Your task to perform on an android device: Go to CNN.com Image 0: 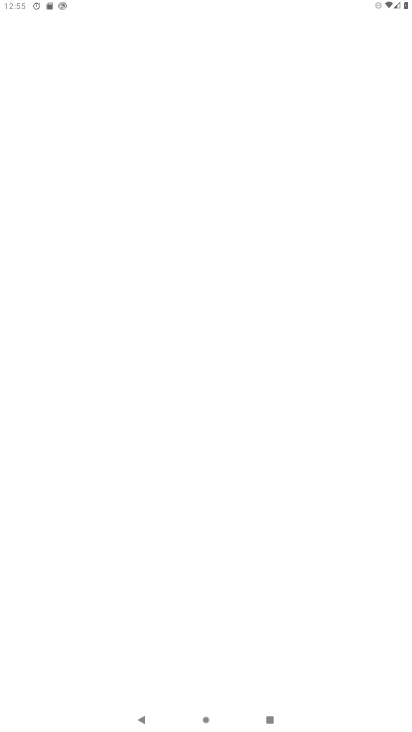
Step 0: drag from (36, 673) to (207, 0)
Your task to perform on an android device: Go to CNN.com Image 1: 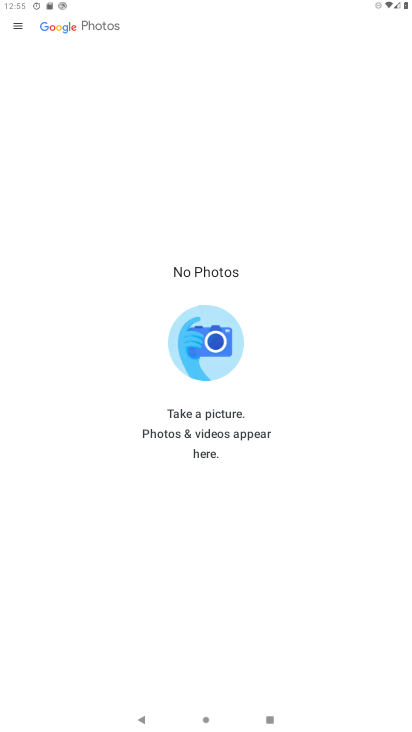
Step 1: press home button
Your task to perform on an android device: Go to CNN.com Image 2: 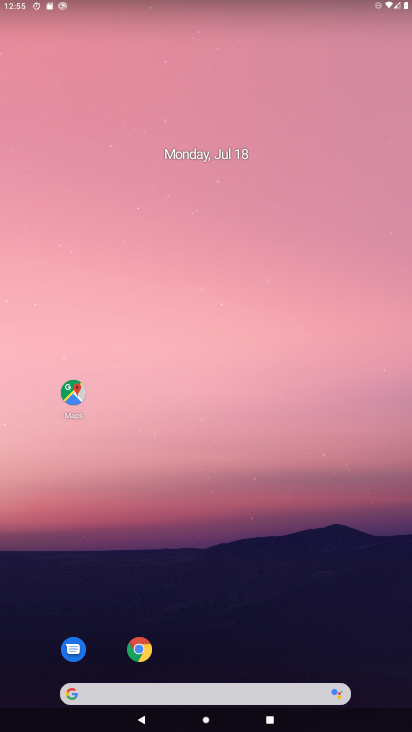
Step 2: click (97, 674)
Your task to perform on an android device: Go to CNN.com Image 3: 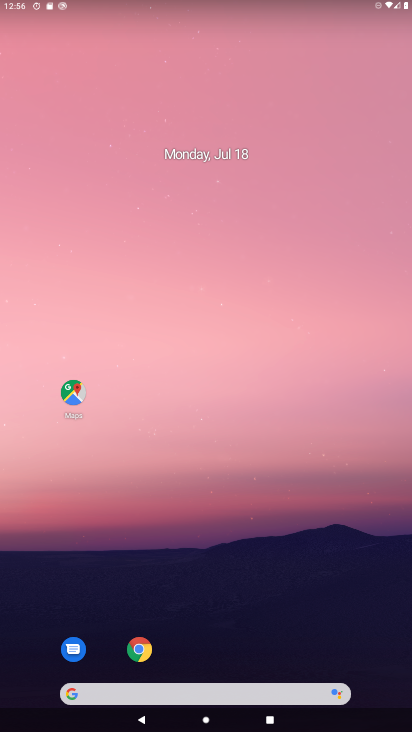
Step 3: click (104, 691)
Your task to perform on an android device: Go to CNN.com Image 4: 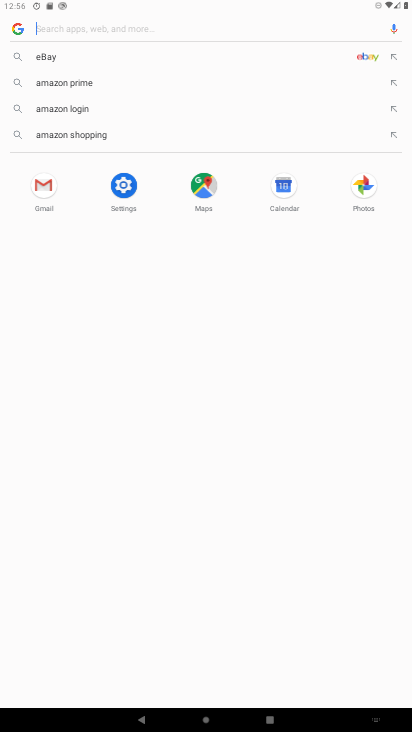
Step 4: type "CNN.com"
Your task to perform on an android device: Go to CNN.com Image 5: 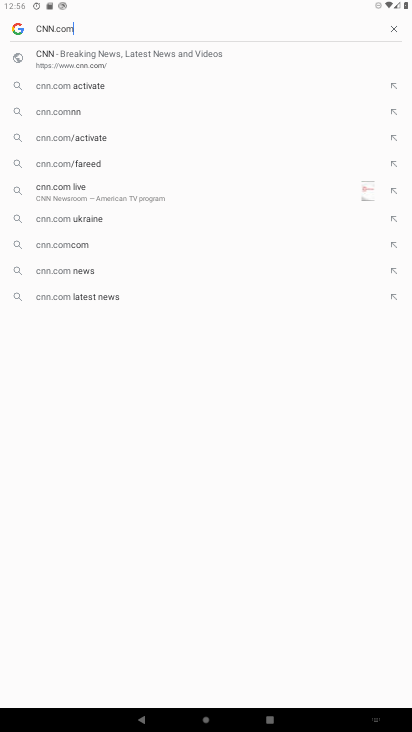
Step 5: click (47, 52)
Your task to perform on an android device: Go to CNN.com Image 6: 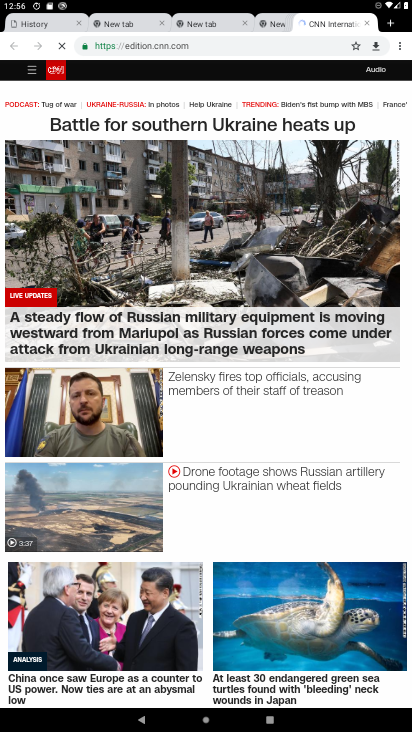
Step 6: task complete